Your task to perform on an android device: Open ESPN.com Image 0: 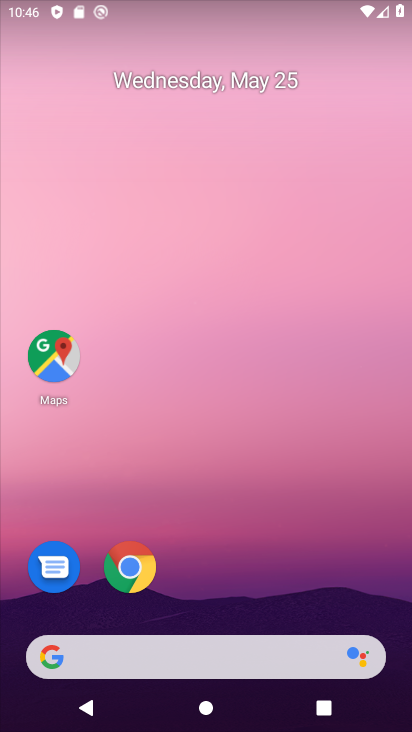
Step 0: click (125, 562)
Your task to perform on an android device: Open ESPN.com Image 1: 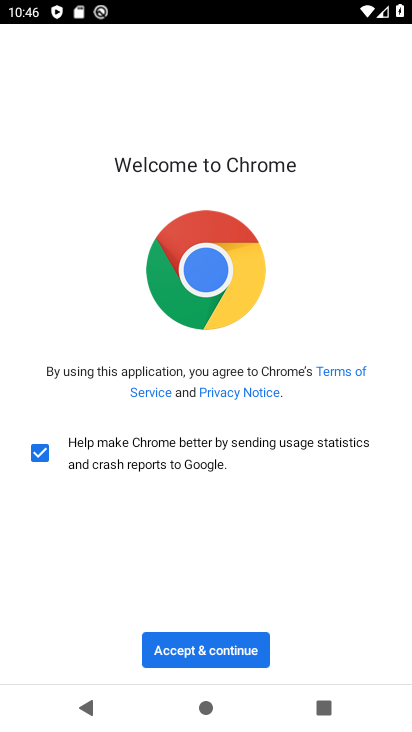
Step 1: click (213, 647)
Your task to perform on an android device: Open ESPN.com Image 2: 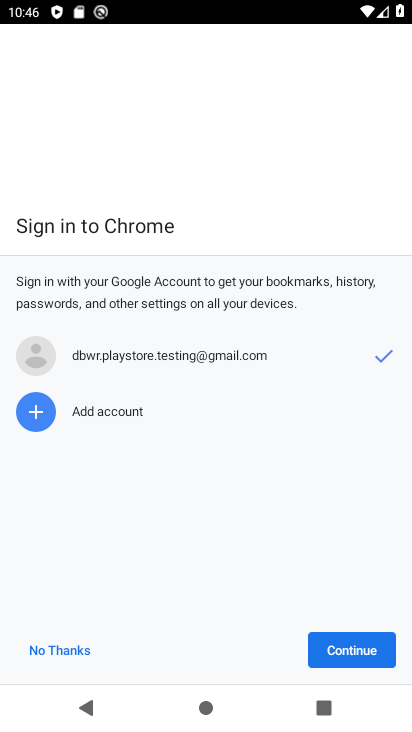
Step 2: click (336, 645)
Your task to perform on an android device: Open ESPN.com Image 3: 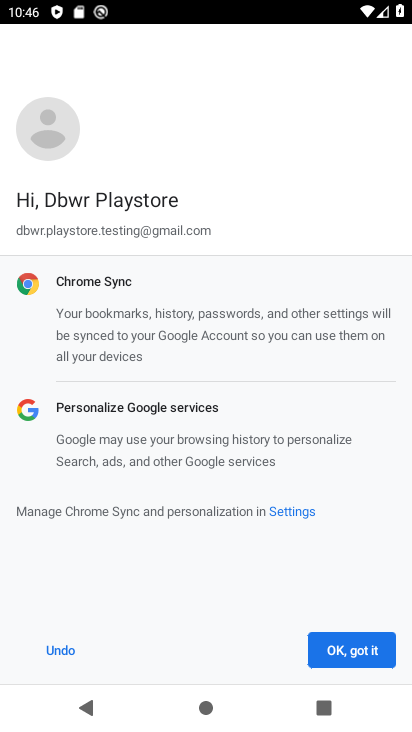
Step 3: click (328, 650)
Your task to perform on an android device: Open ESPN.com Image 4: 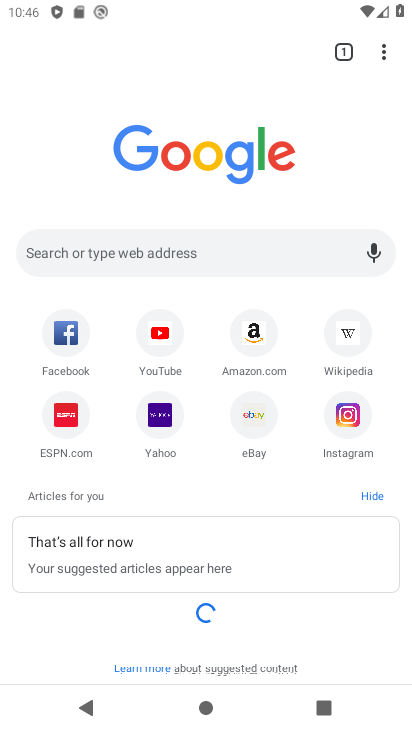
Step 4: click (60, 427)
Your task to perform on an android device: Open ESPN.com Image 5: 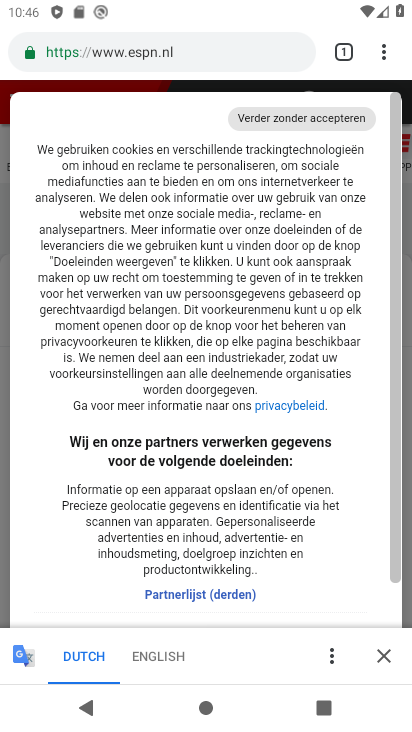
Step 5: task complete